Your task to perform on an android device: Open location settings Image 0: 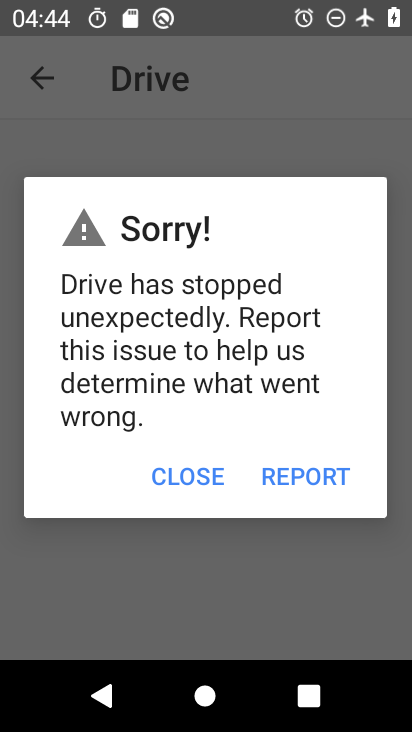
Step 0: press back button
Your task to perform on an android device: Open location settings Image 1: 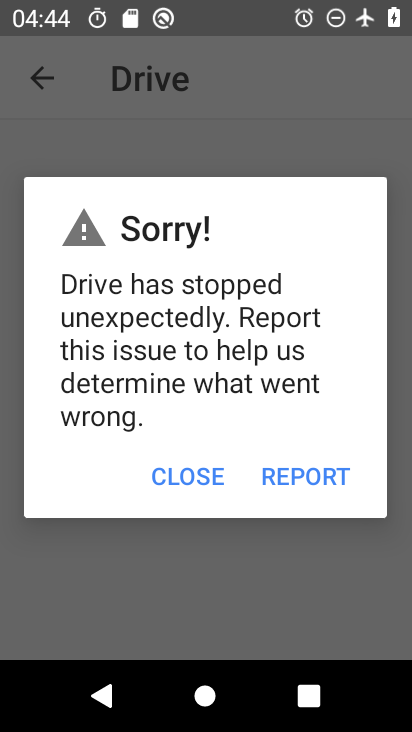
Step 1: press home button
Your task to perform on an android device: Open location settings Image 2: 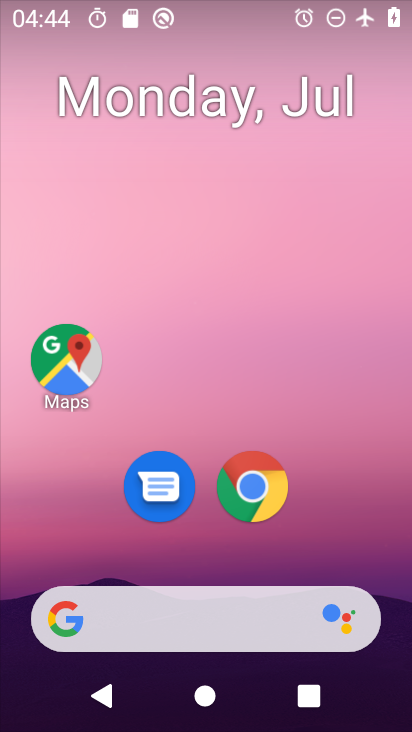
Step 2: drag from (150, 524) to (271, 17)
Your task to perform on an android device: Open location settings Image 3: 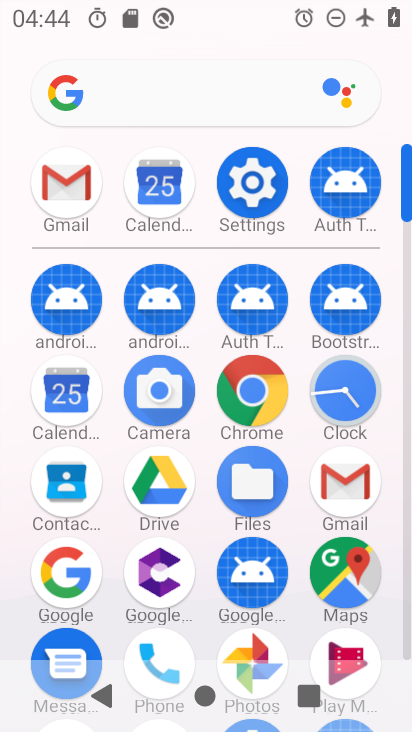
Step 3: click (255, 170)
Your task to perform on an android device: Open location settings Image 4: 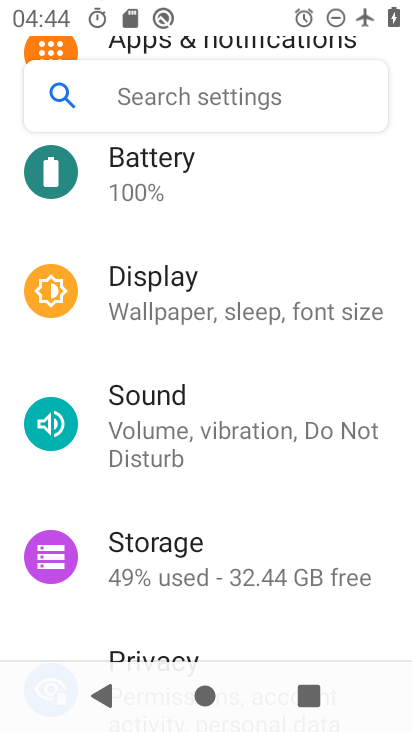
Step 4: drag from (221, 210) to (240, 678)
Your task to perform on an android device: Open location settings Image 5: 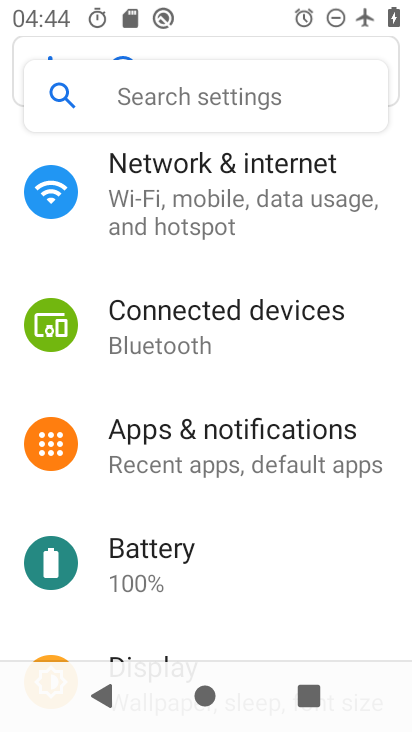
Step 5: drag from (237, 255) to (274, 288)
Your task to perform on an android device: Open location settings Image 6: 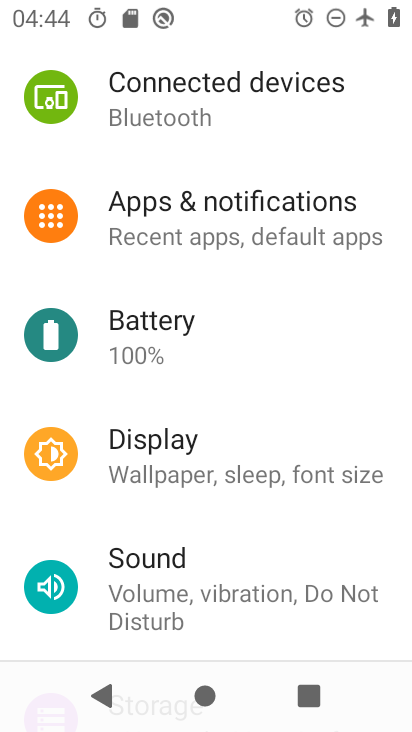
Step 6: drag from (189, 587) to (300, 134)
Your task to perform on an android device: Open location settings Image 7: 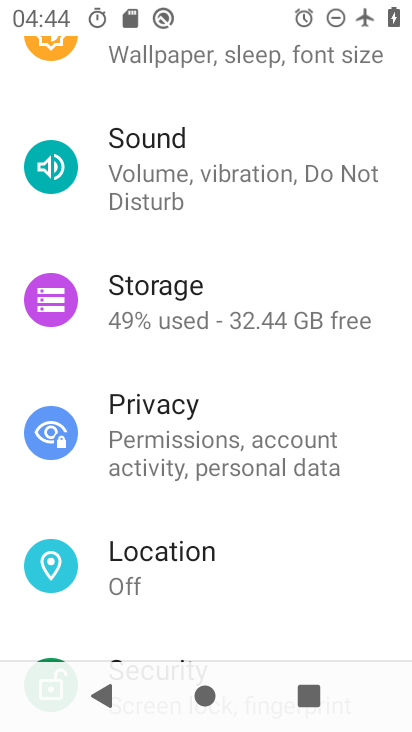
Step 7: click (172, 567)
Your task to perform on an android device: Open location settings Image 8: 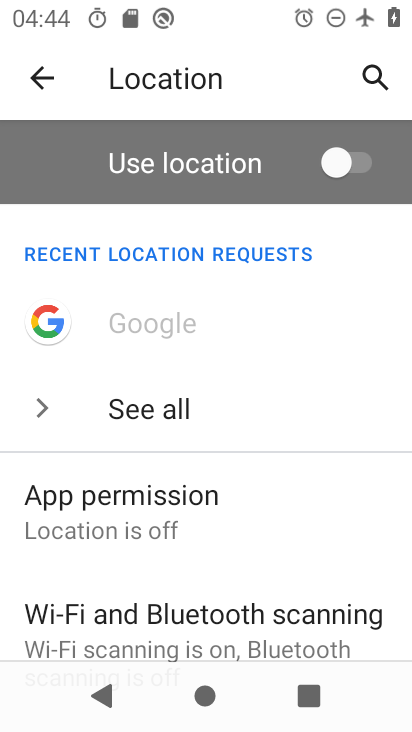
Step 8: task complete